Your task to perform on an android device: check android version Image 0: 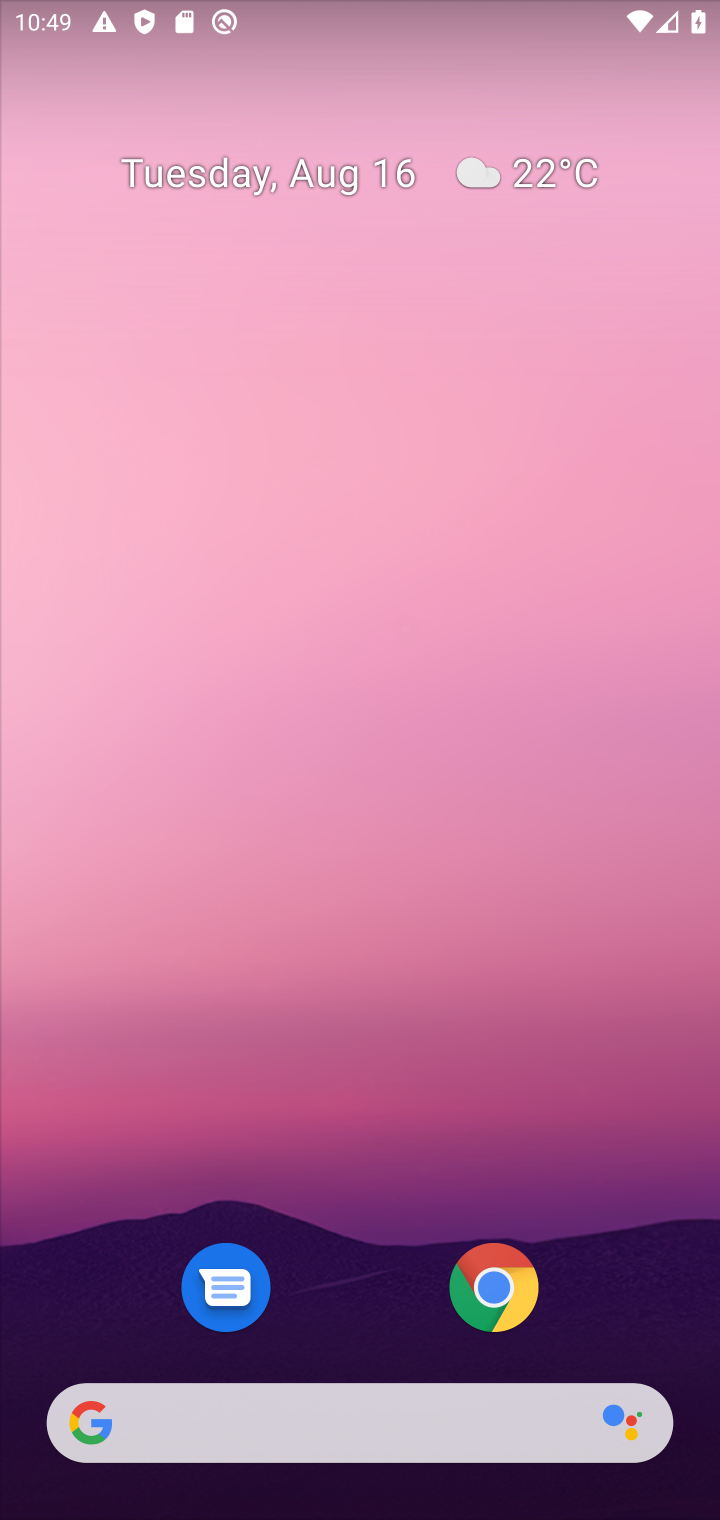
Step 0: drag from (655, 1317) to (603, 217)
Your task to perform on an android device: check android version Image 1: 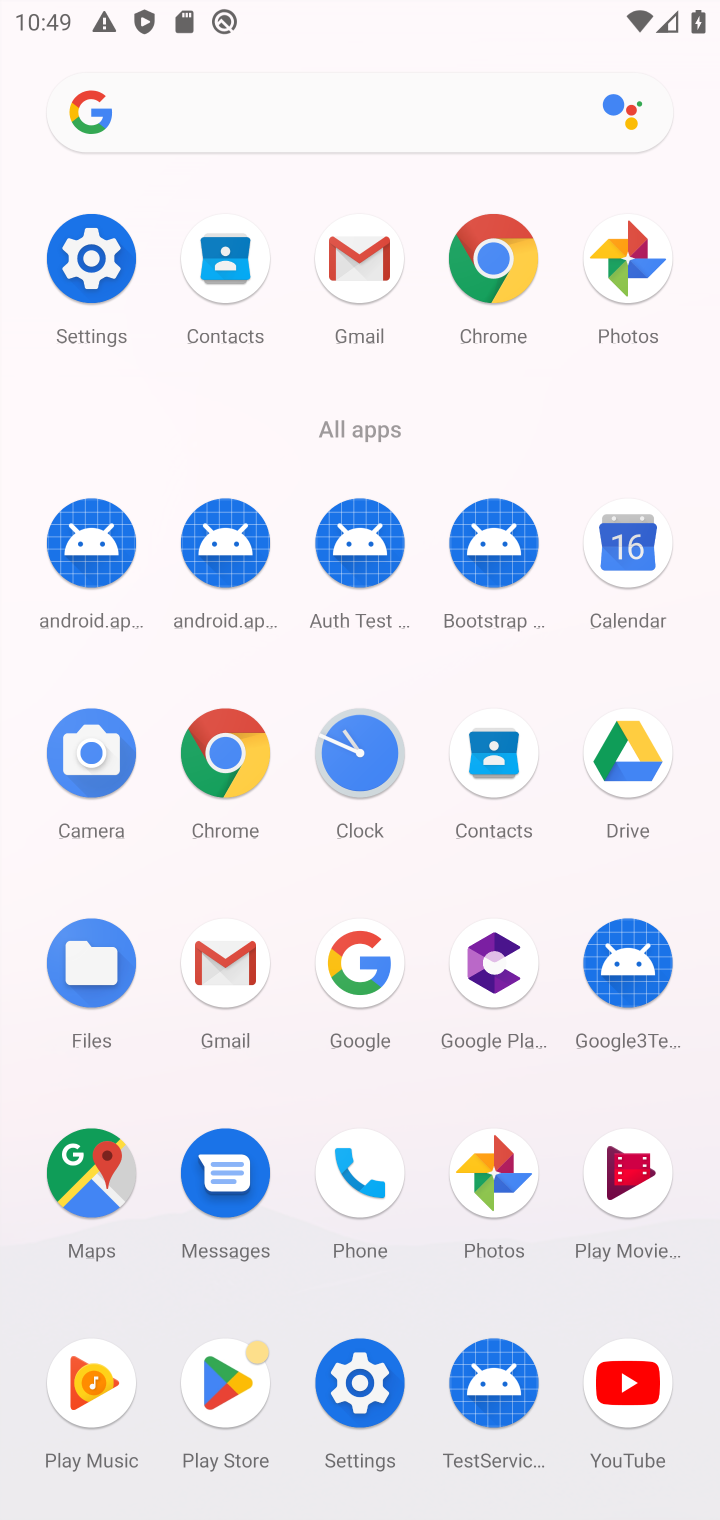
Step 1: click (359, 1391)
Your task to perform on an android device: check android version Image 2: 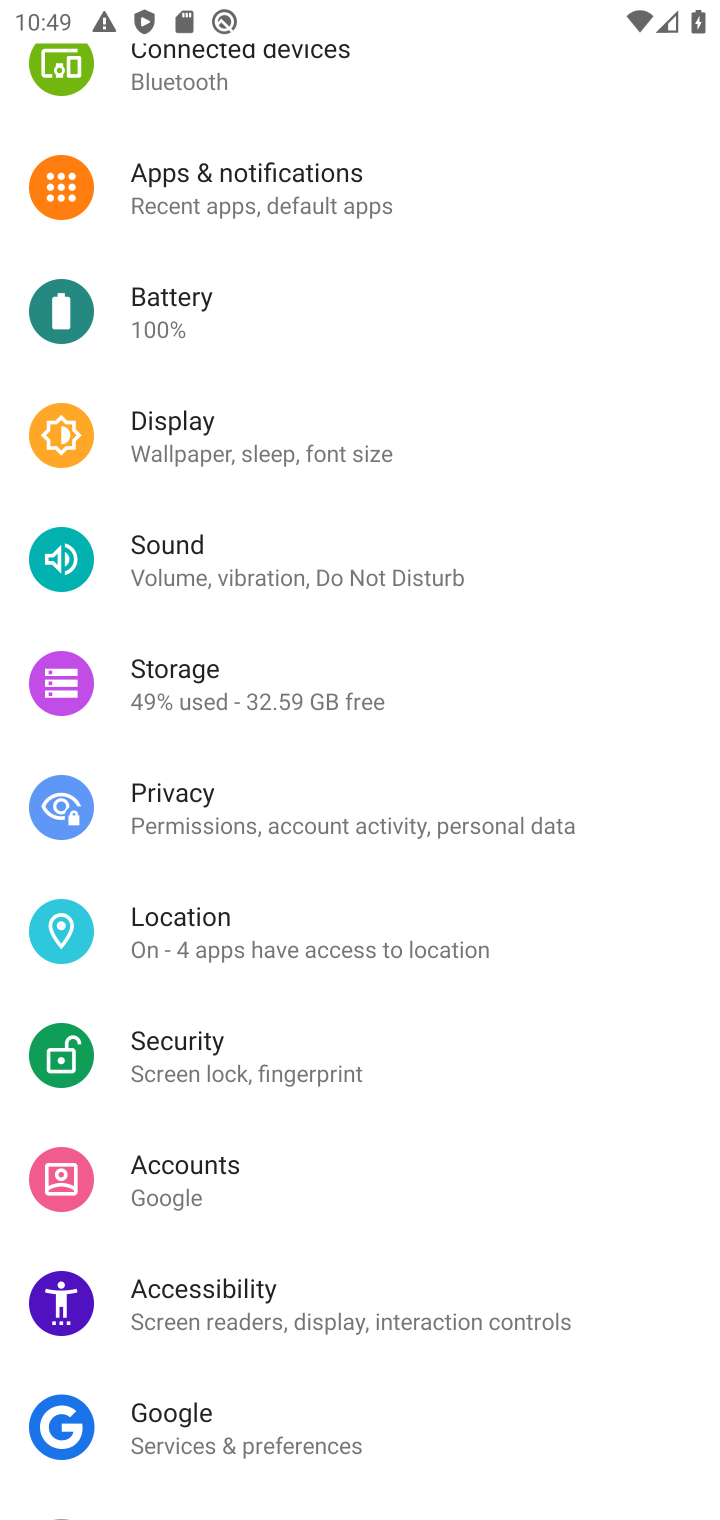
Step 2: drag from (473, 1173) to (533, 270)
Your task to perform on an android device: check android version Image 3: 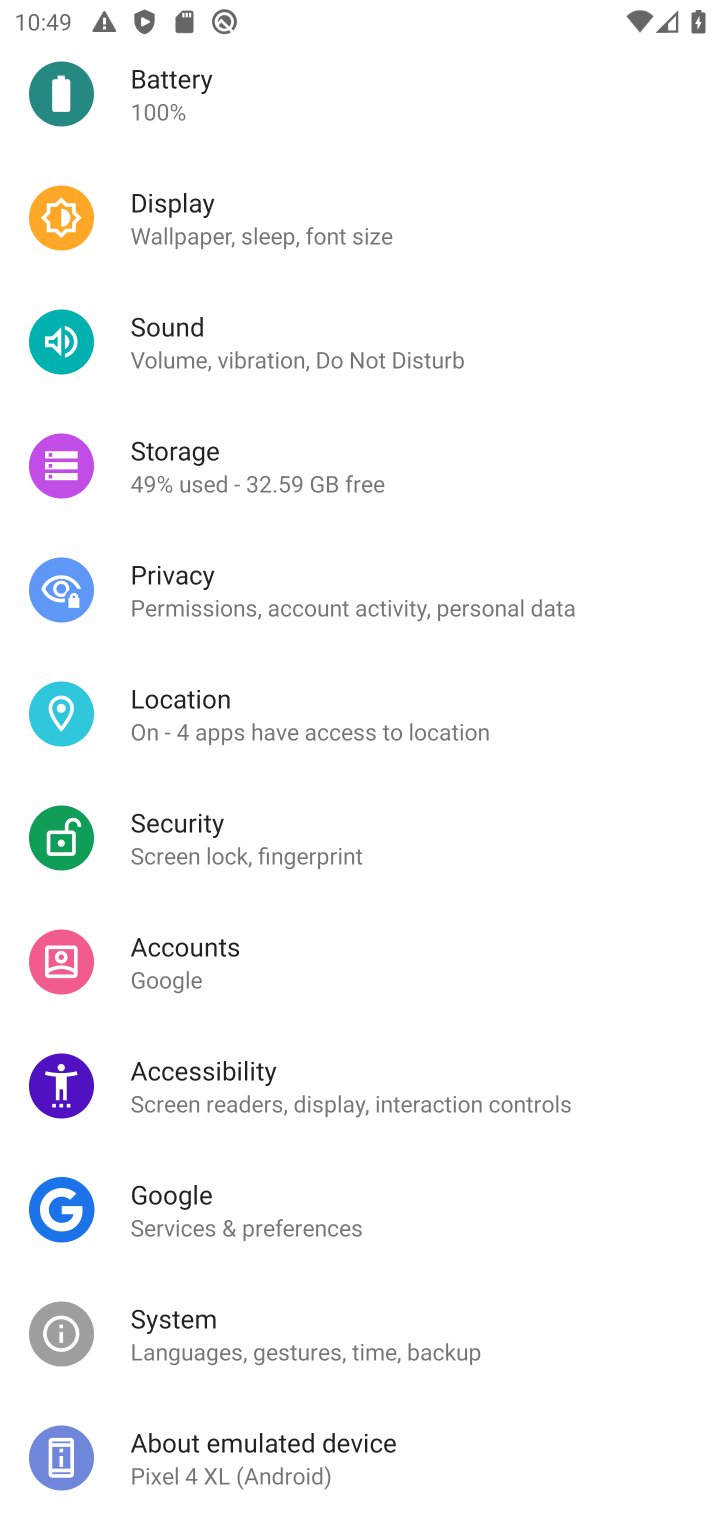
Step 3: drag from (548, 1385) to (546, 846)
Your task to perform on an android device: check android version Image 4: 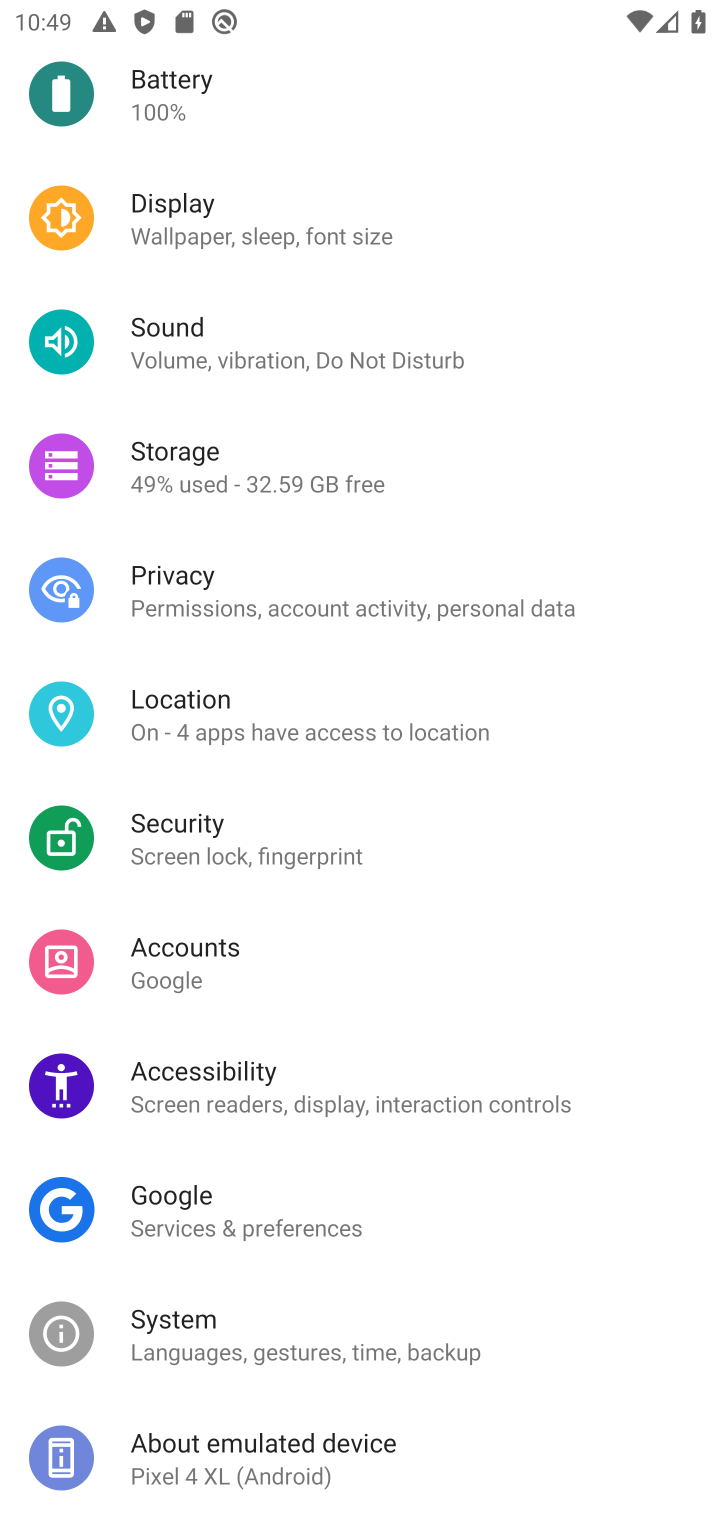
Step 4: click (246, 1450)
Your task to perform on an android device: check android version Image 5: 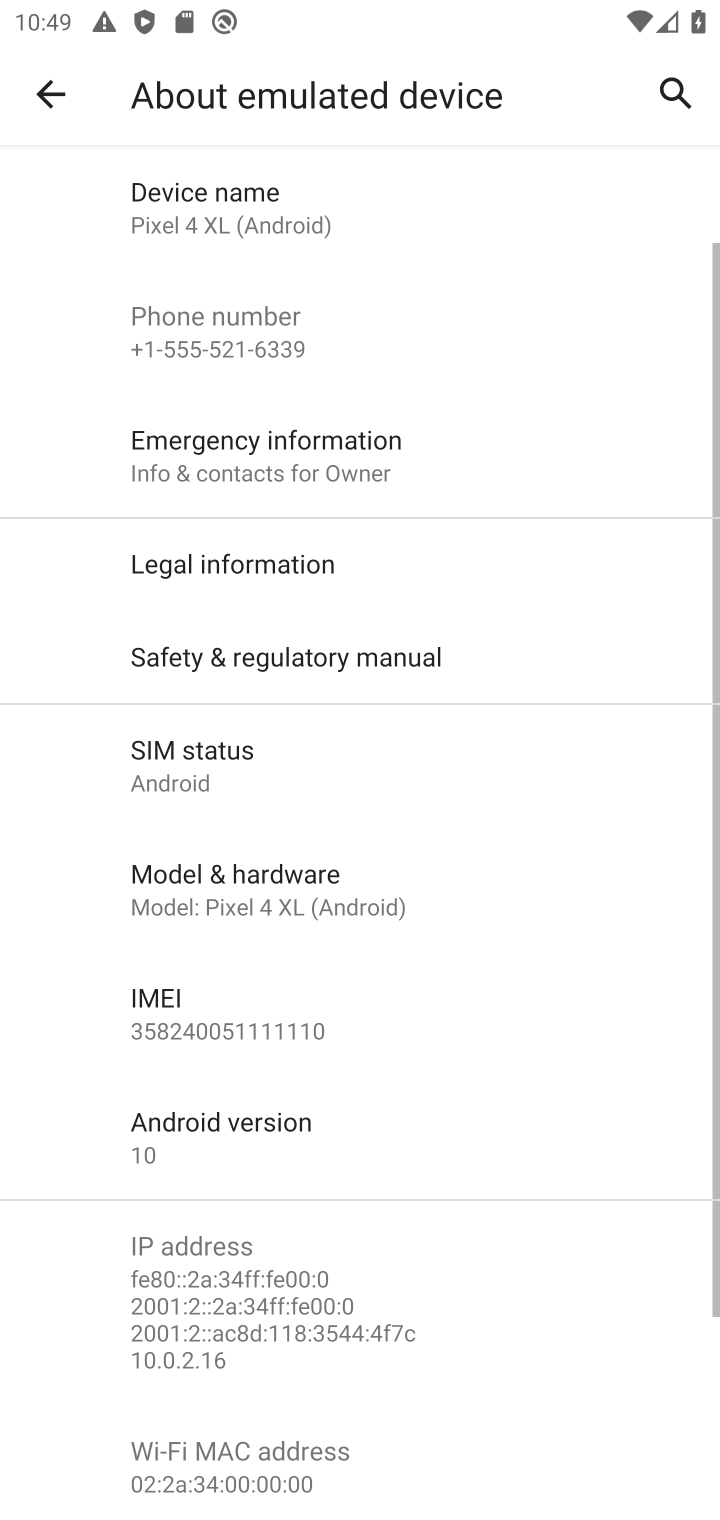
Step 5: drag from (462, 1233) to (467, 694)
Your task to perform on an android device: check android version Image 6: 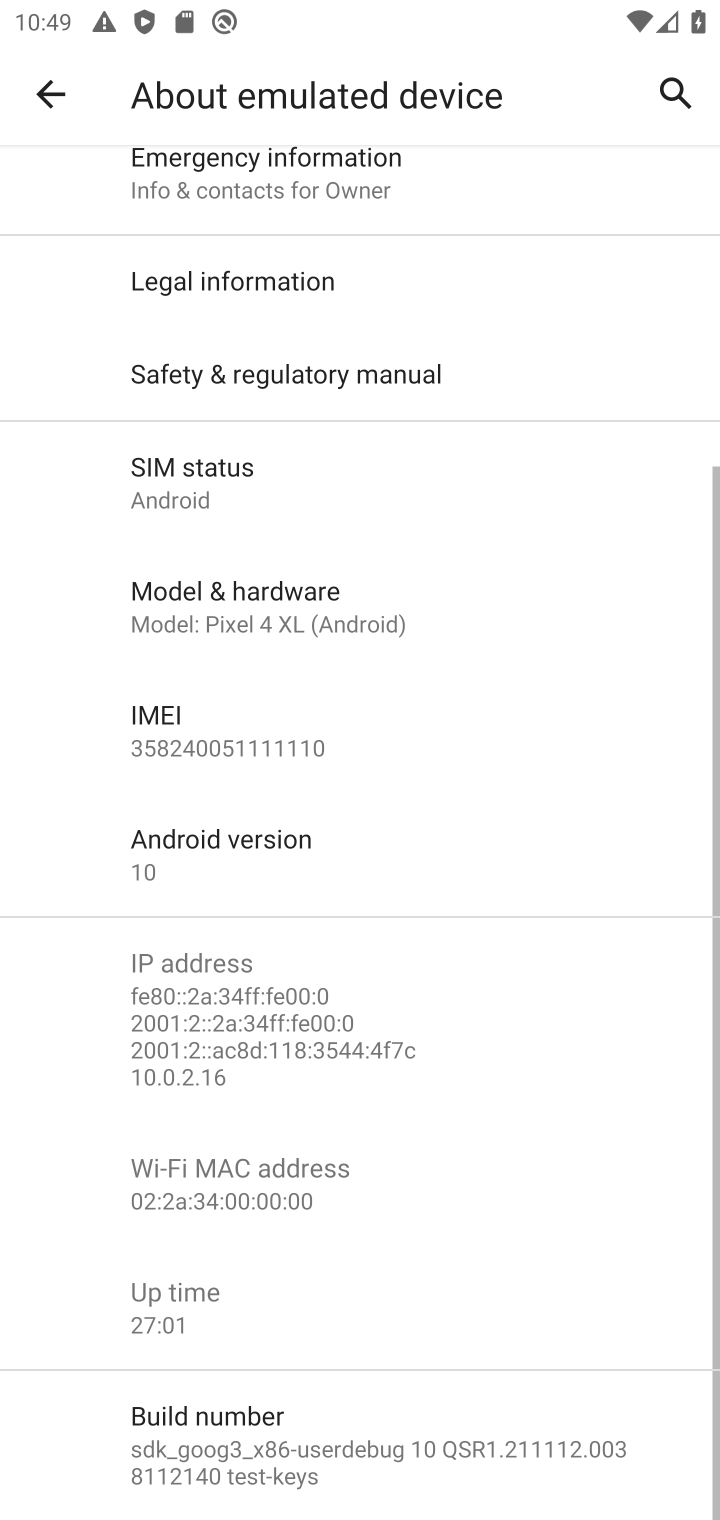
Step 6: click (164, 845)
Your task to perform on an android device: check android version Image 7: 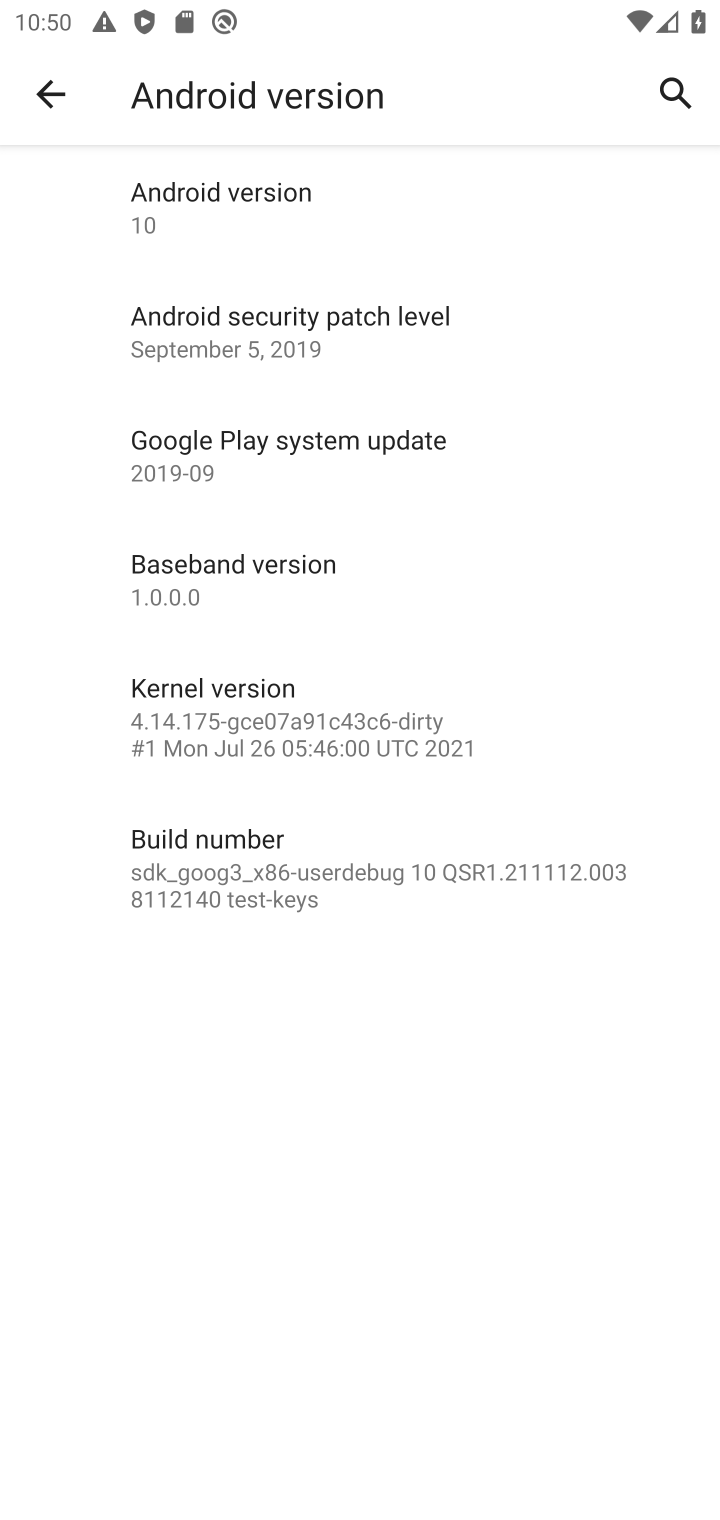
Step 7: click (229, 199)
Your task to perform on an android device: check android version Image 8: 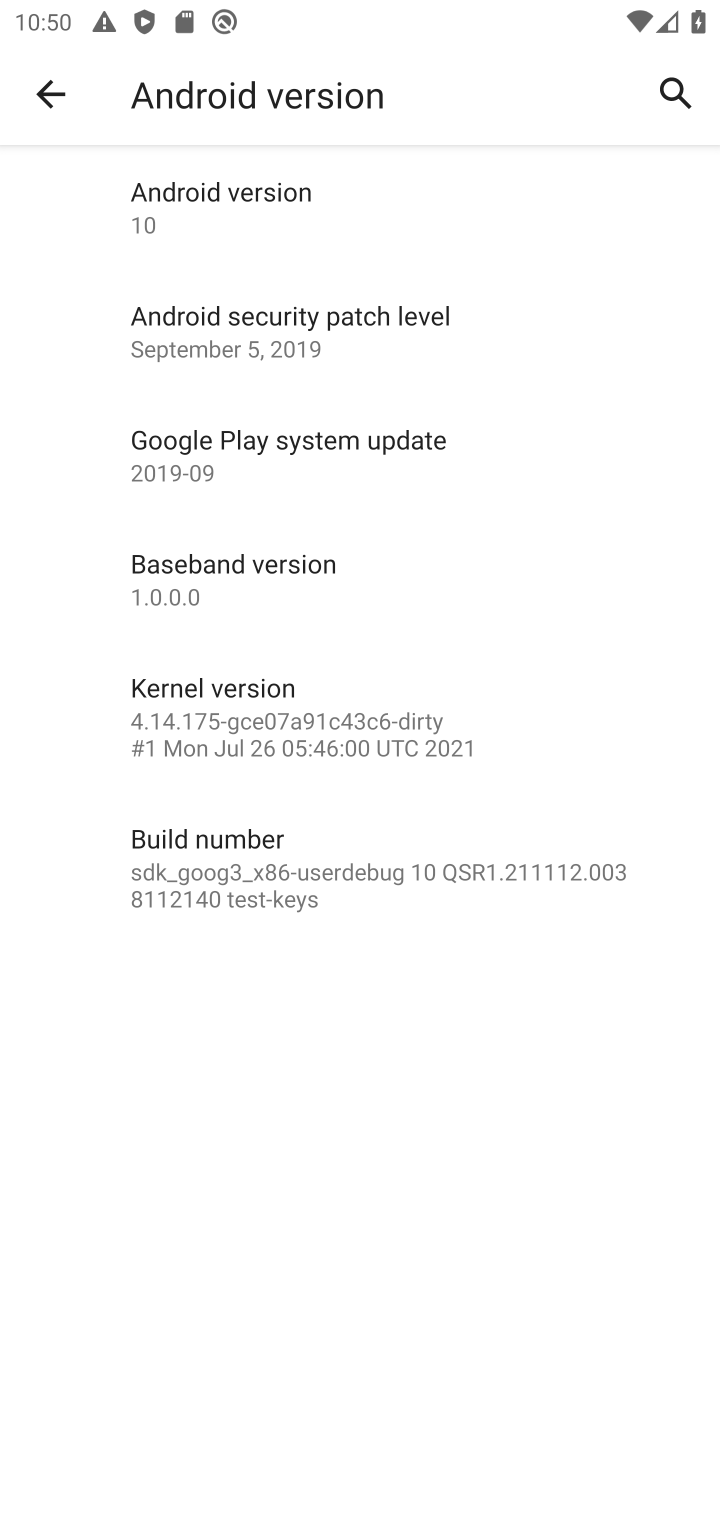
Step 8: task complete